Your task to perform on an android device: What is the recent news? Image 0: 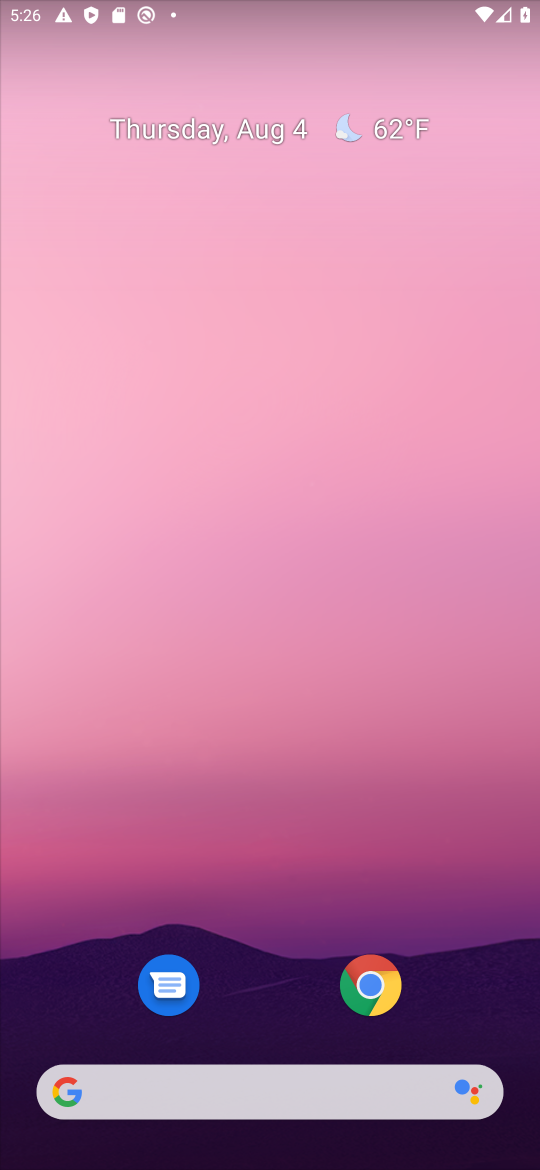
Step 0: drag from (286, 1080) to (133, 151)
Your task to perform on an android device: What is the recent news? Image 1: 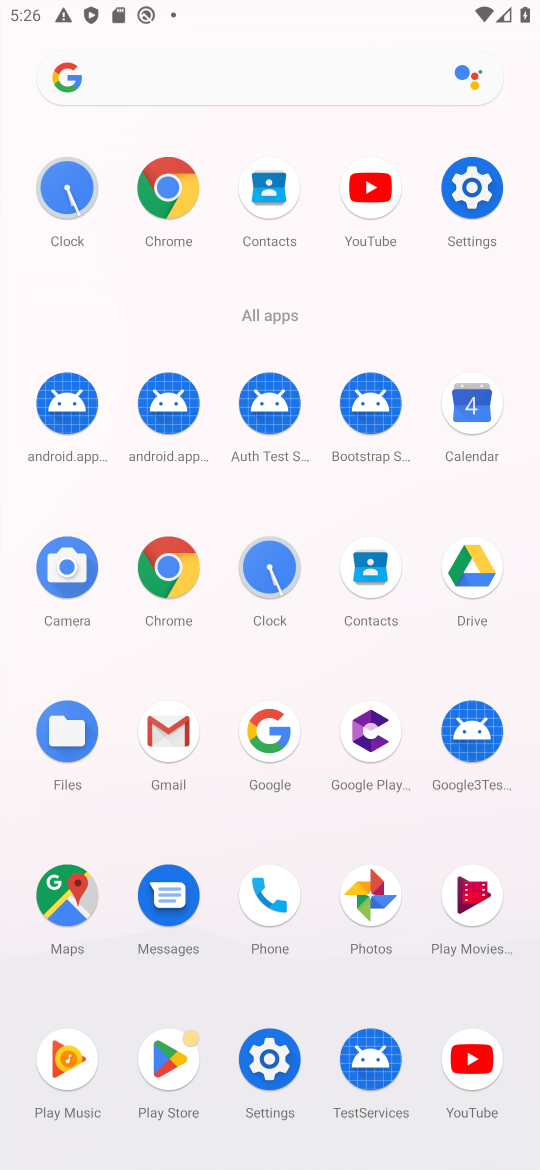
Step 1: click (177, 588)
Your task to perform on an android device: What is the recent news? Image 2: 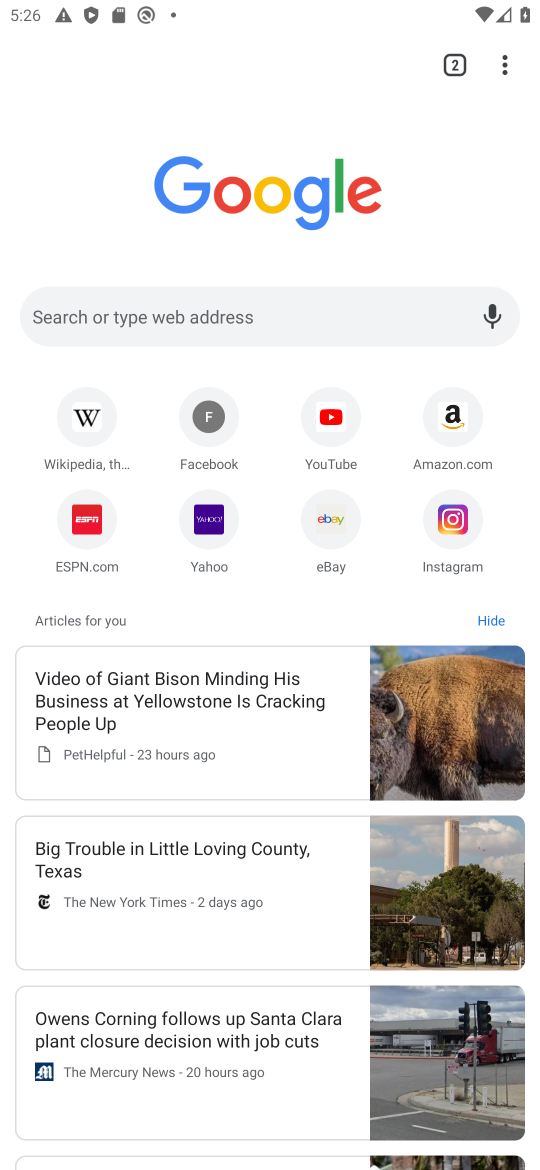
Step 2: click (277, 335)
Your task to perform on an android device: What is the recent news? Image 3: 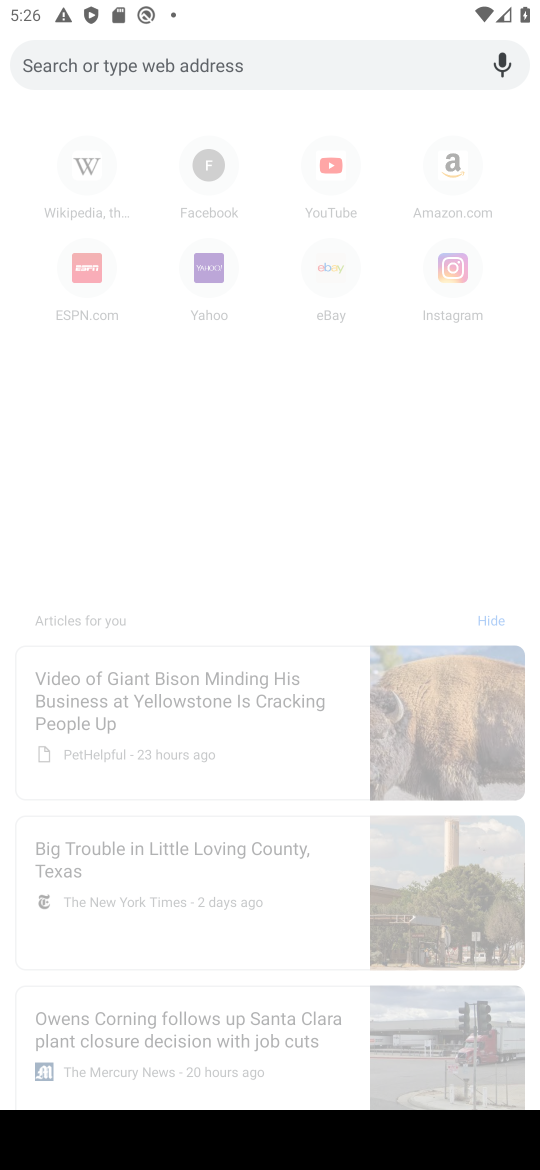
Step 3: type "recent news"
Your task to perform on an android device: What is the recent news? Image 4: 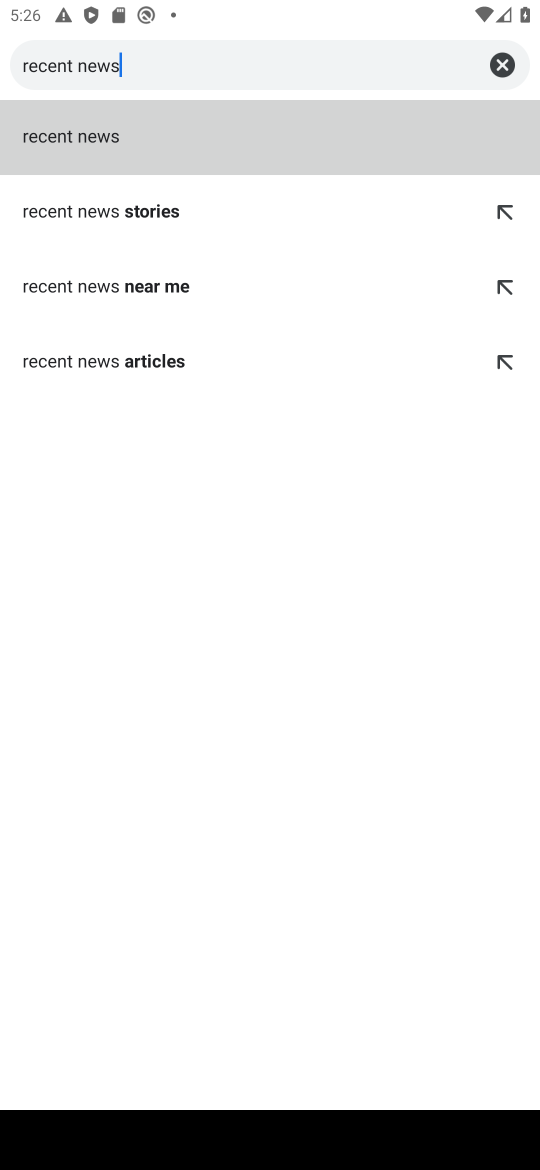
Step 4: click (403, 128)
Your task to perform on an android device: What is the recent news? Image 5: 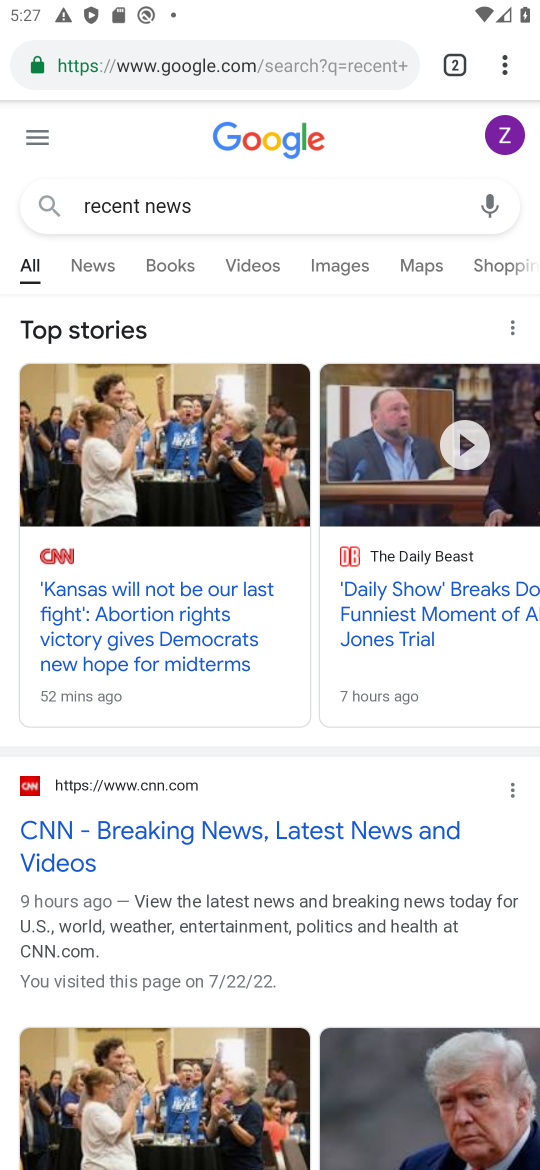
Step 5: task complete